Your task to perform on an android device: visit the assistant section in the google photos Image 0: 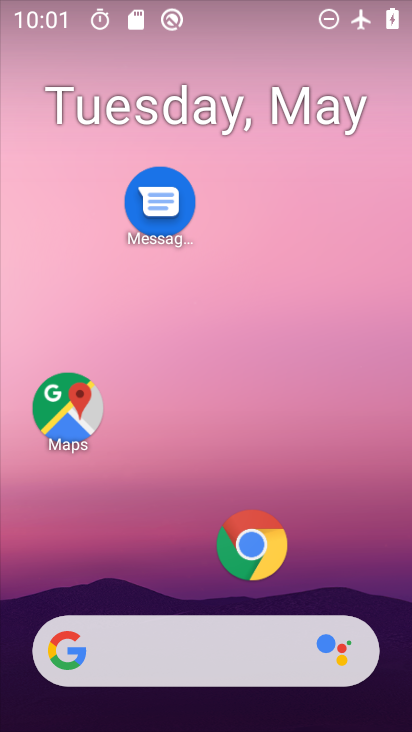
Step 0: drag from (153, 566) to (143, 181)
Your task to perform on an android device: visit the assistant section in the google photos Image 1: 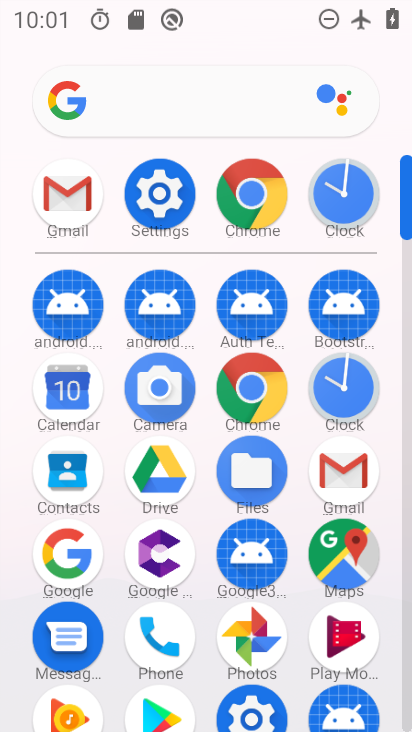
Step 1: drag from (198, 582) to (183, 378)
Your task to perform on an android device: visit the assistant section in the google photos Image 2: 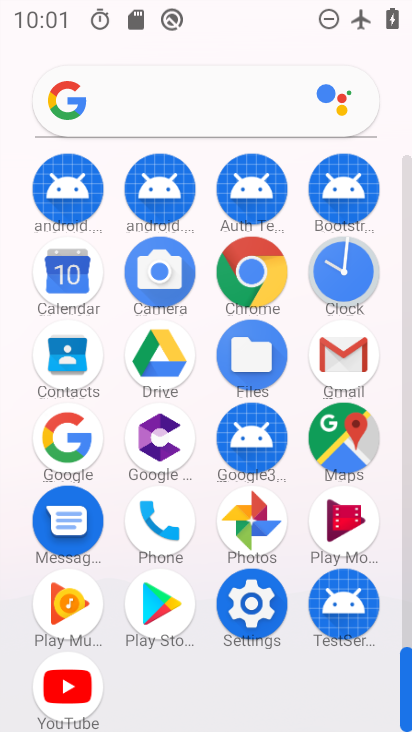
Step 2: click (245, 490)
Your task to perform on an android device: visit the assistant section in the google photos Image 3: 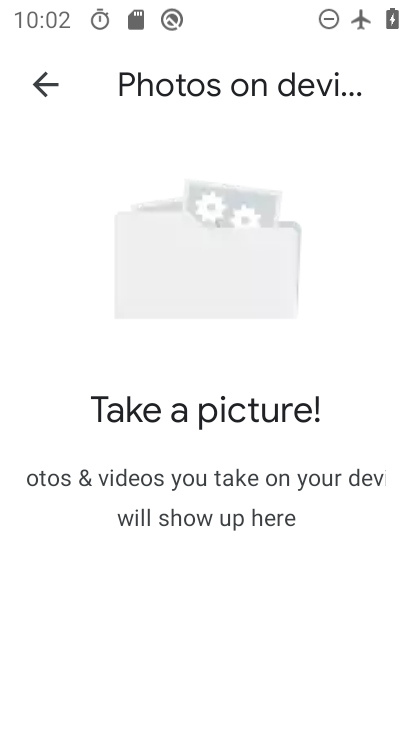
Step 3: click (42, 90)
Your task to perform on an android device: visit the assistant section in the google photos Image 4: 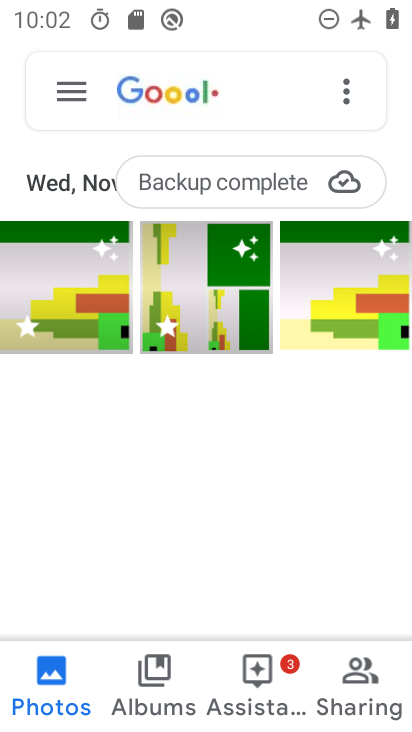
Step 4: click (59, 94)
Your task to perform on an android device: visit the assistant section in the google photos Image 5: 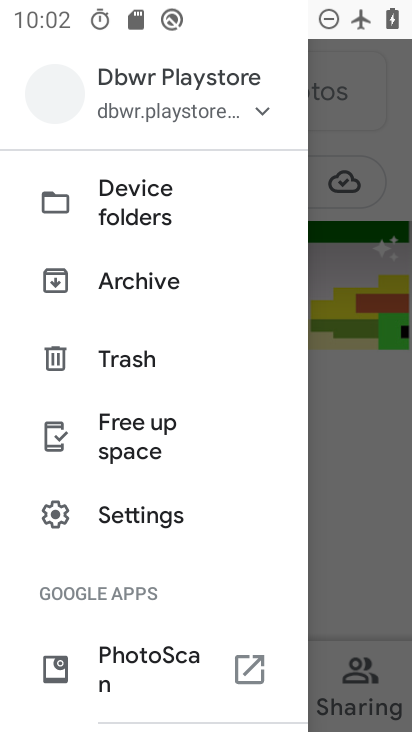
Step 5: click (361, 263)
Your task to perform on an android device: visit the assistant section in the google photos Image 6: 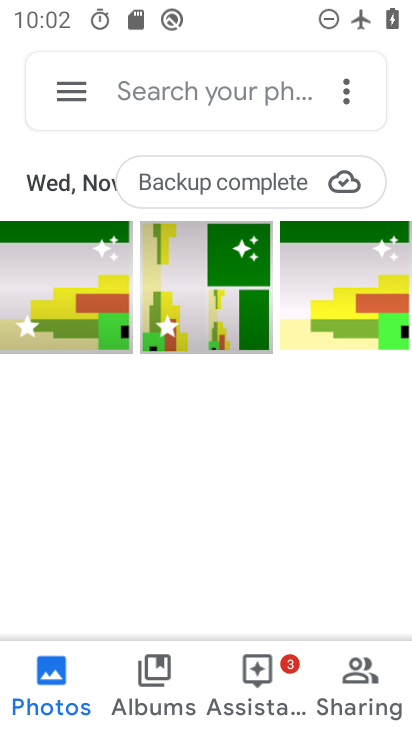
Step 6: click (265, 664)
Your task to perform on an android device: visit the assistant section in the google photos Image 7: 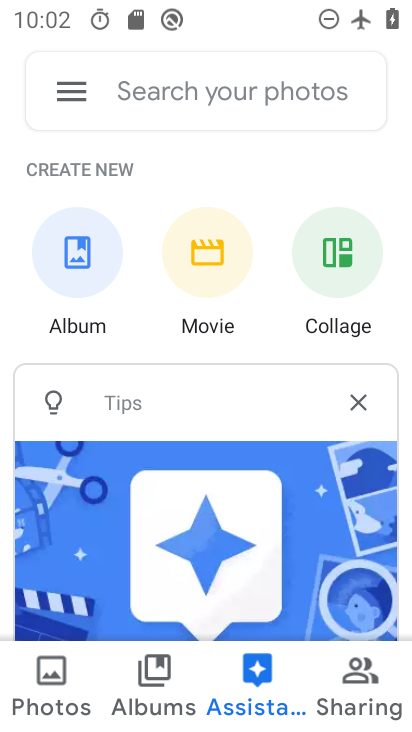
Step 7: task complete